Your task to perform on an android device: toggle javascript in the chrome app Image 0: 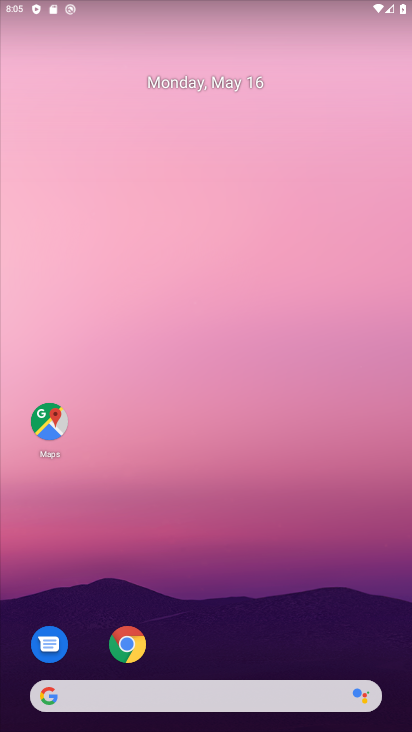
Step 0: click (116, 653)
Your task to perform on an android device: toggle javascript in the chrome app Image 1: 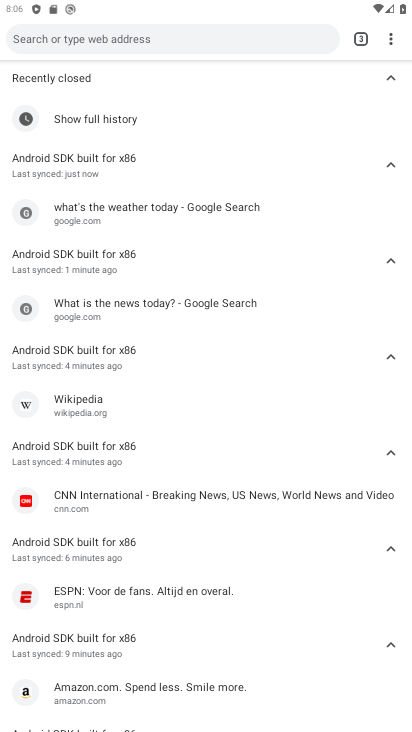
Step 1: click (387, 40)
Your task to perform on an android device: toggle javascript in the chrome app Image 2: 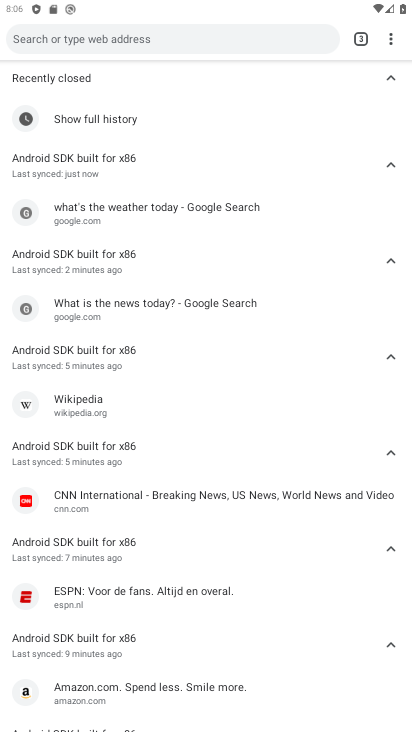
Step 2: click (384, 48)
Your task to perform on an android device: toggle javascript in the chrome app Image 3: 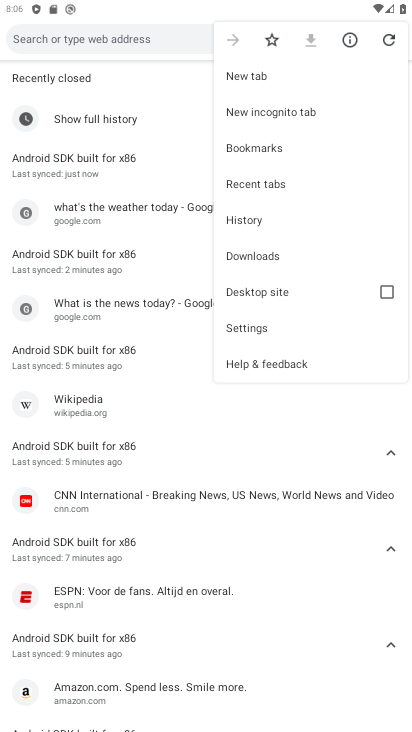
Step 3: click (256, 336)
Your task to perform on an android device: toggle javascript in the chrome app Image 4: 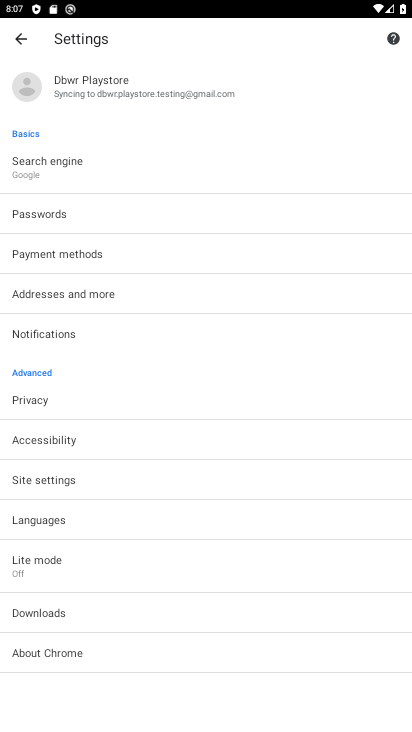
Step 4: click (92, 479)
Your task to perform on an android device: toggle javascript in the chrome app Image 5: 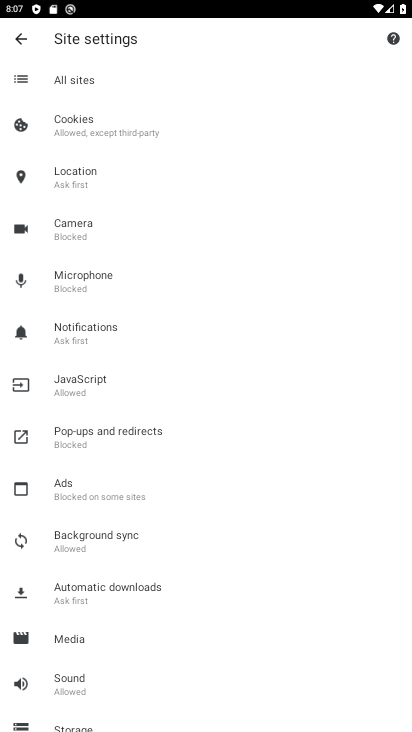
Step 5: click (101, 389)
Your task to perform on an android device: toggle javascript in the chrome app Image 6: 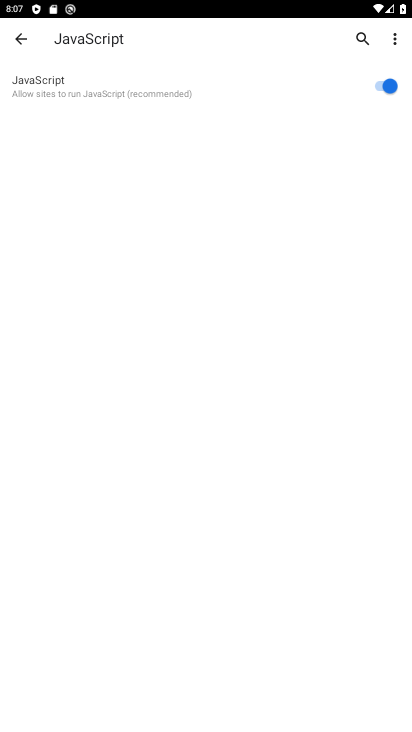
Step 6: click (387, 88)
Your task to perform on an android device: toggle javascript in the chrome app Image 7: 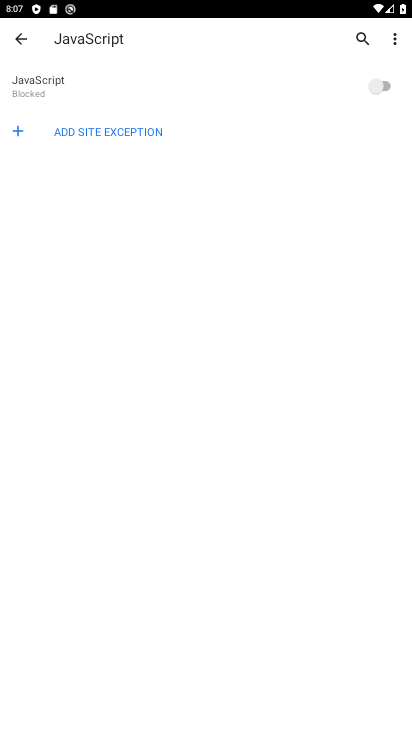
Step 7: task complete